Your task to perform on an android device: change the clock display to analog Image 0: 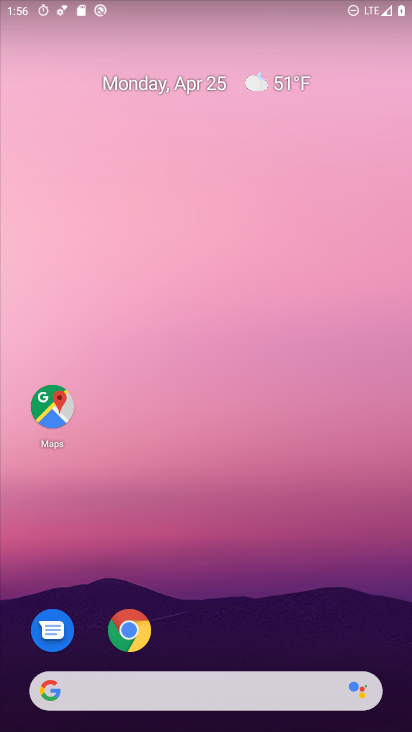
Step 0: click (313, 263)
Your task to perform on an android device: change the clock display to analog Image 1: 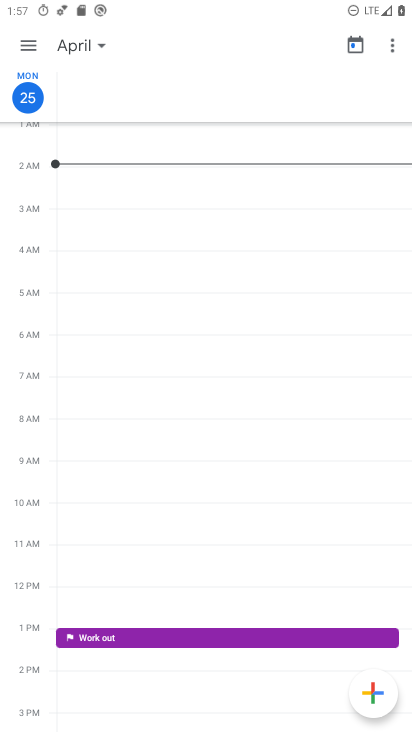
Step 1: drag from (223, 625) to (338, 155)
Your task to perform on an android device: change the clock display to analog Image 2: 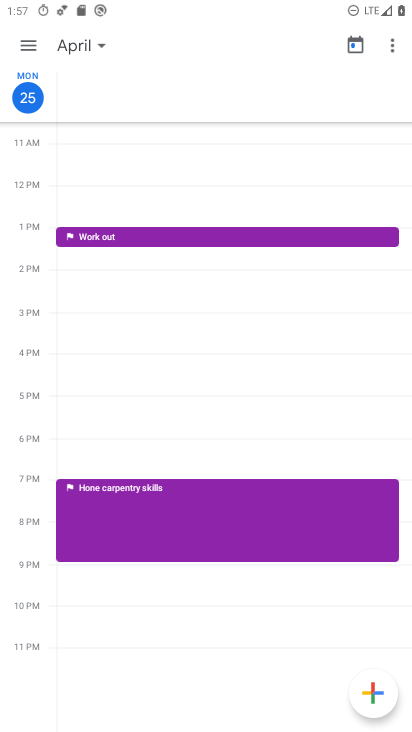
Step 2: press home button
Your task to perform on an android device: change the clock display to analog Image 3: 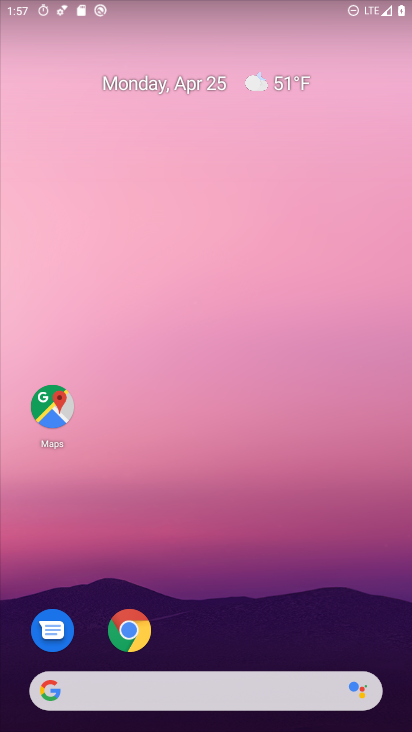
Step 3: drag from (186, 689) to (228, 143)
Your task to perform on an android device: change the clock display to analog Image 4: 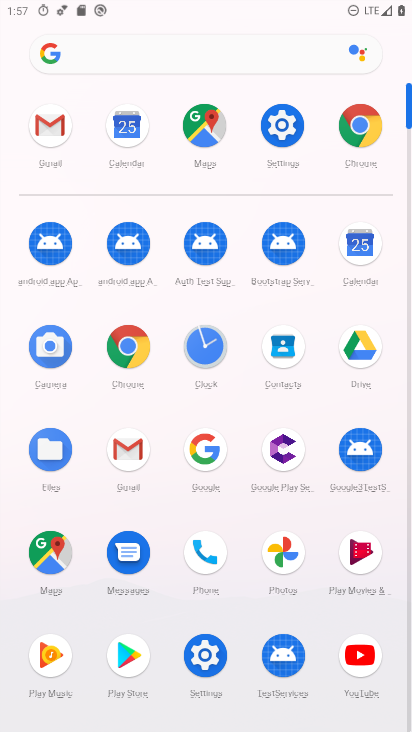
Step 4: drag from (242, 658) to (244, 193)
Your task to perform on an android device: change the clock display to analog Image 5: 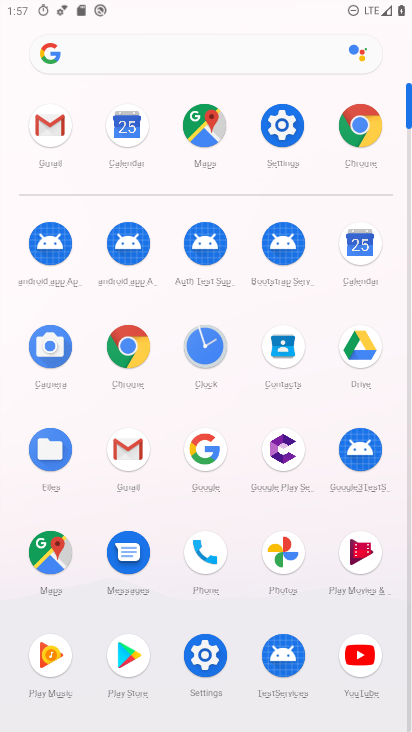
Step 5: click (210, 346)
Your task to perform on an android device: change the clock display to analog Image 6: 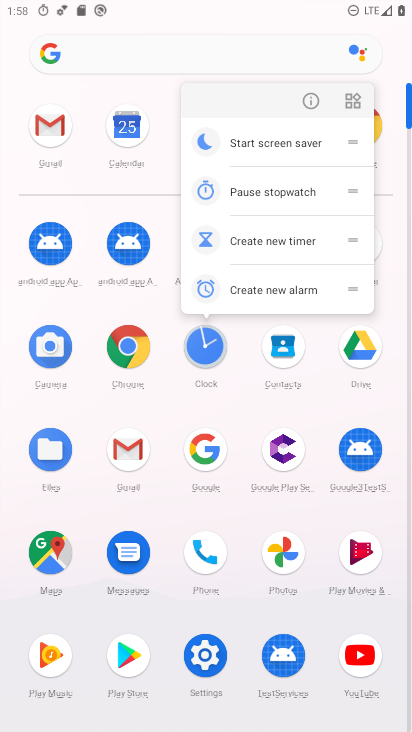
Step 6: click (316, 102)
Your task to perform on an android device: change the clock display to analog Image 7: 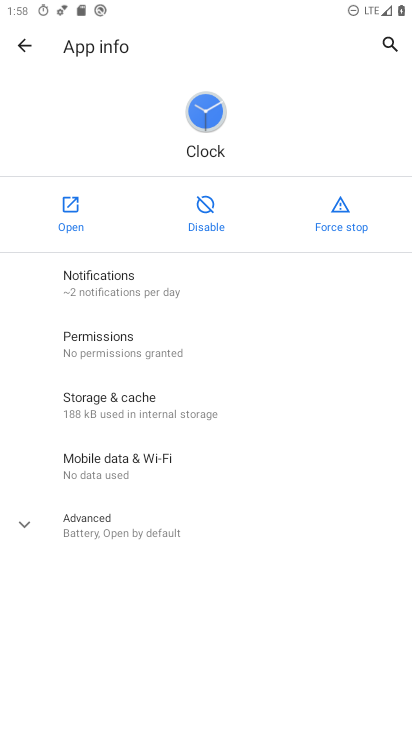
Step 7: click (75, 211)
Your task to perform on an android device: change the clock display to analog Image 8: 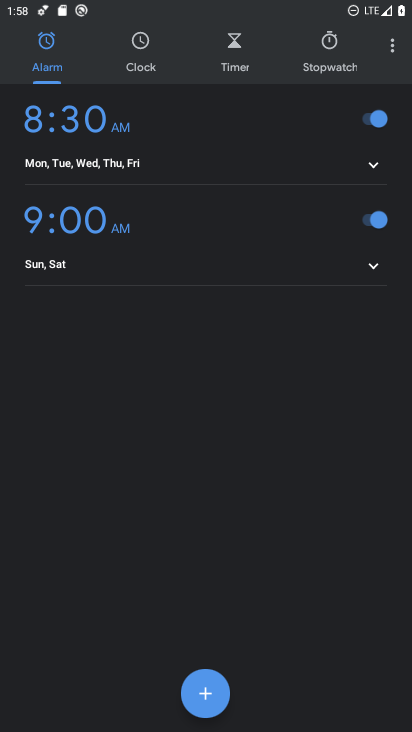
Step 8: click (385, 47)
Your task to perform on an android device: change the clock display to analog Image 9: 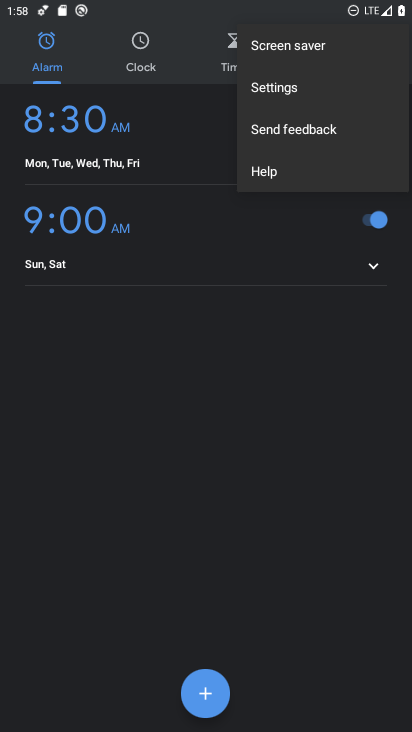
Step 9: click (268, 92)
Your task to perform on an android device: change the clock display to analog Image 10: 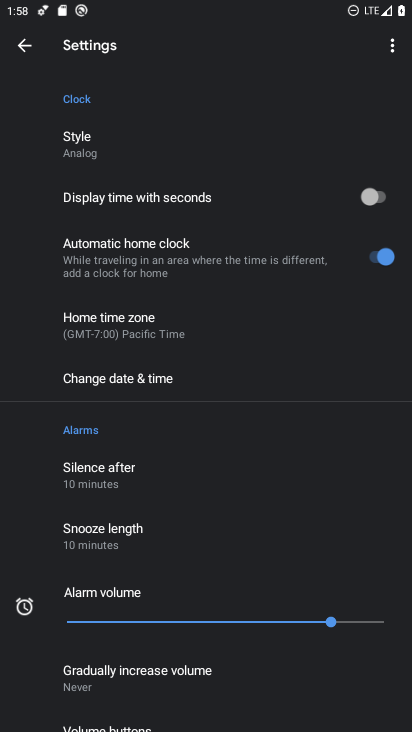
Step 10: click (170, 145)
Your task to perform on an android device: change the clock display to analog Image 11: 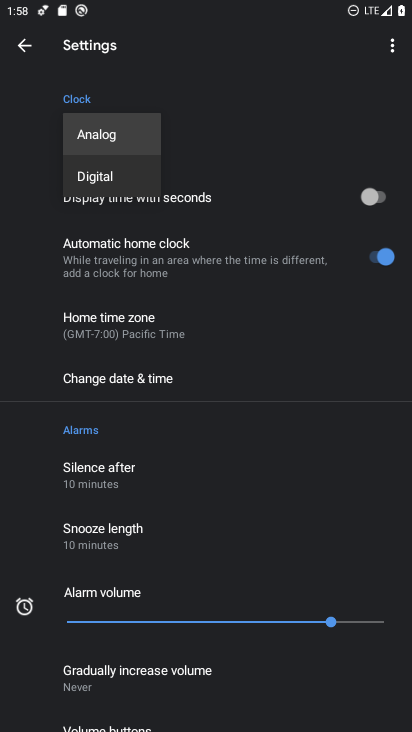
Step 11: click (94, 138)
Your task to perform on an android device: change the clock display to analog Image 12: 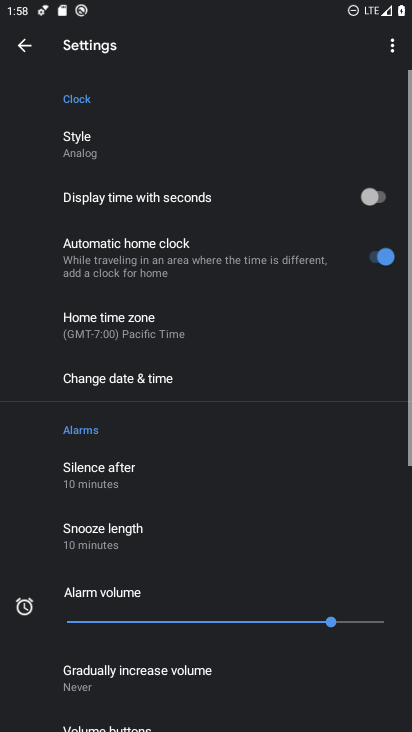
Step 12: task complete